Your task to perform on an android device: check android version Image 0: 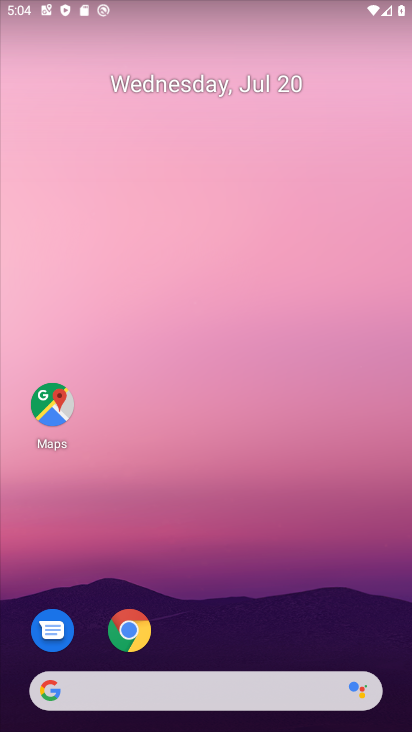
Step 0: drag from (305, 694) to (341, 81)
Your task to perform on an android device: check android version Image 1: 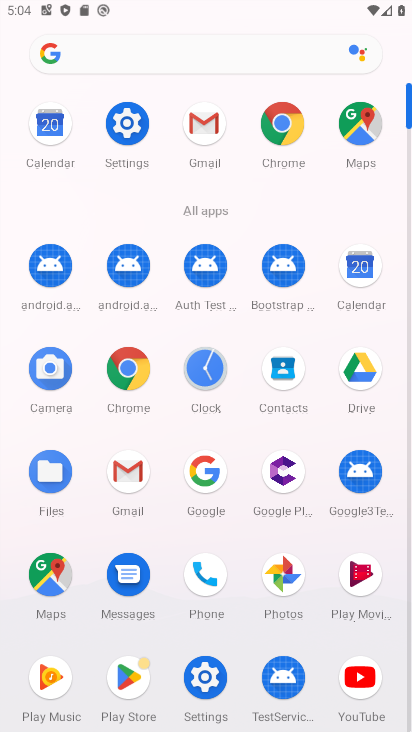
Step 1: click (118, 133)
Your task to perform on an android device: check android version Image 2: 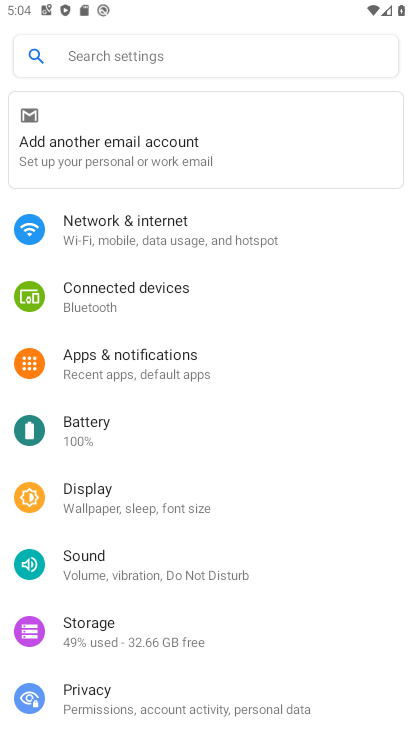
Step 2: drag from (225, 698) to (269, 94)
Your task to perform on an android device: check android version Image 3: 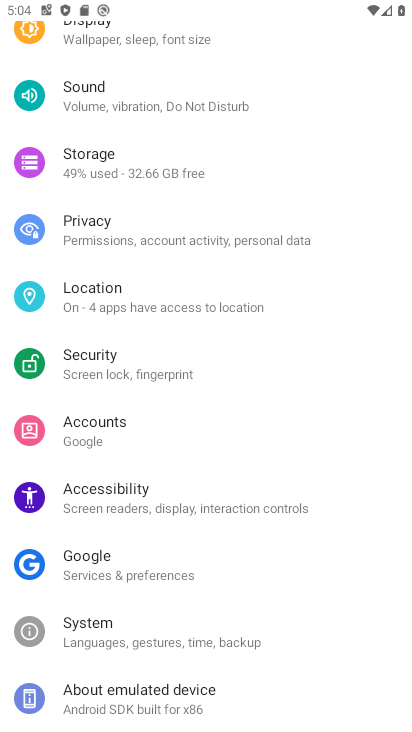
Step 3: click (200, 683)
Your task to perform on an android device: check android version Image 4: 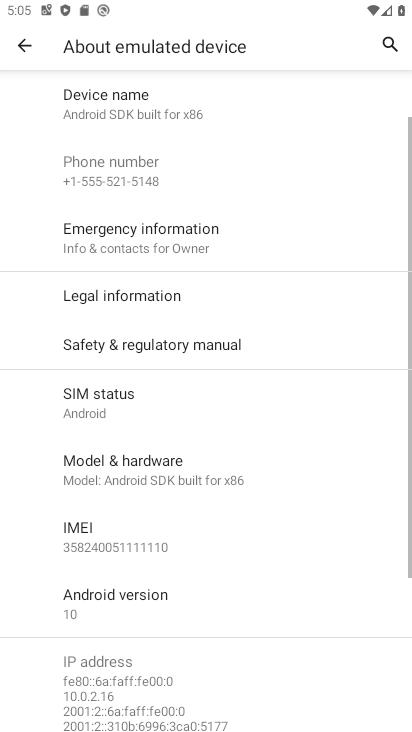
Step 4: click (134, 616)
Your task to perform on an android device: check android version Image 5: 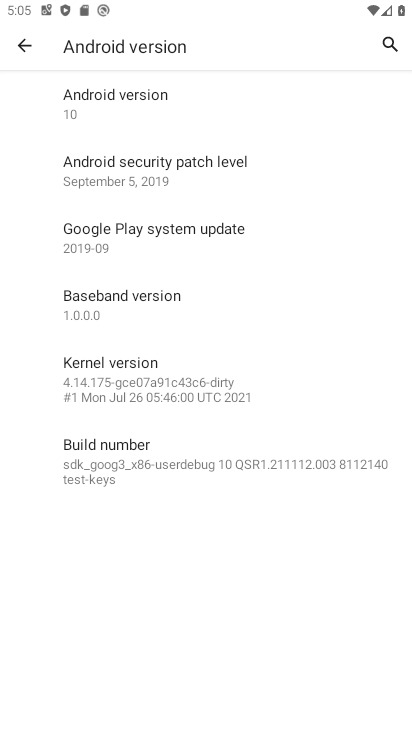
Step 5: task complete